Your task to perform on an android device: open app "Reddit" Image 0: 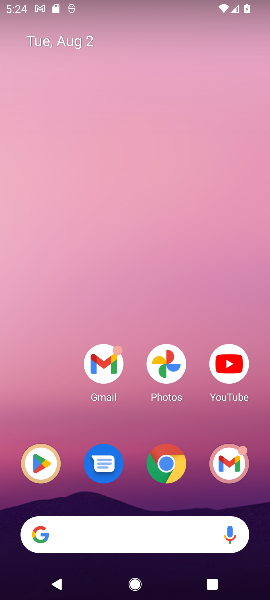
Step 0: press home button
Your task to perform on an android device: open app "Reddit" Image 1: 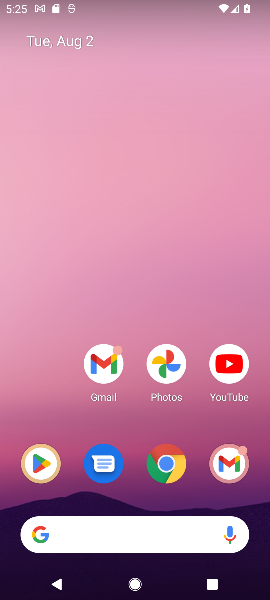
Step 1: click (42, 466)
Your task to perform on an android device: open app "Reddit" Image 2: 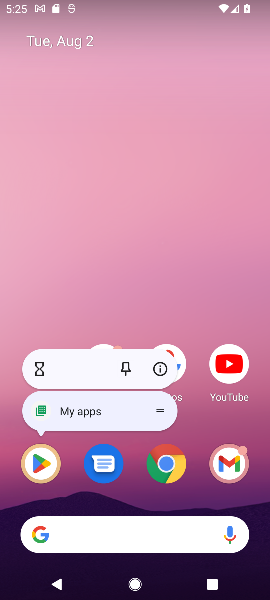
Step 2: click (42, 469)
Your task to perform on an android device: open app "Reddit" Image 3: 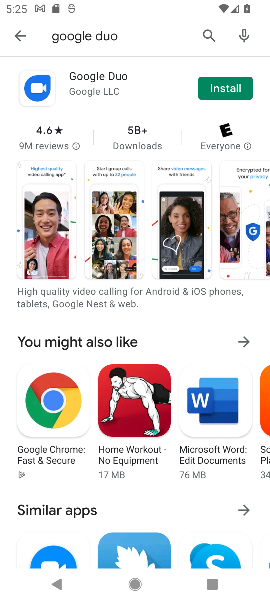
Step 3: click (210, 30)
Your task to perform on an android device: open app "Reddit" Image 4: 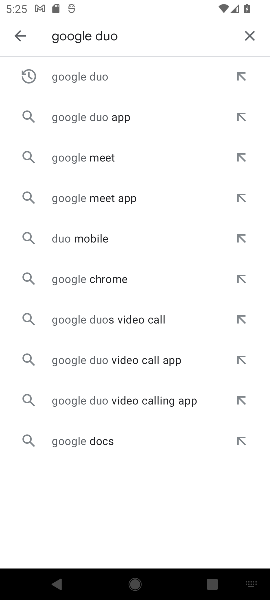
Step 4: click (250, 27)
Your task to perform on an android device: open app "Reddit" Image 5: 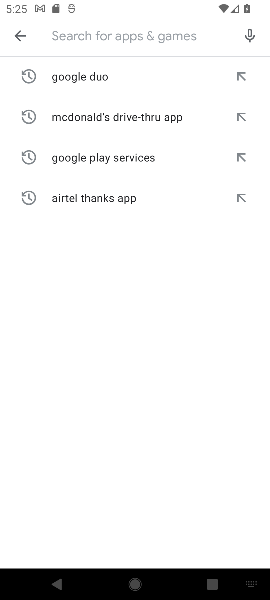
Step 5: type "Reddit"
Your task to perform on an android device: open app "Reddit" Image 6: 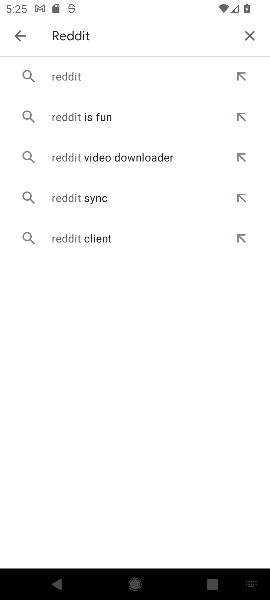
Step 6: click (77, 76)
Your task to perform on an android device: open app "Reddit" Image 7: 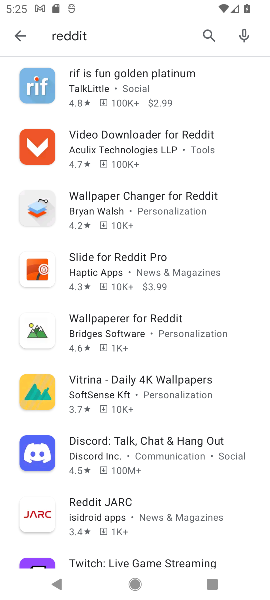
Step 7: task complete